Your task to perform on an android device: Go to notification settings Image 0: 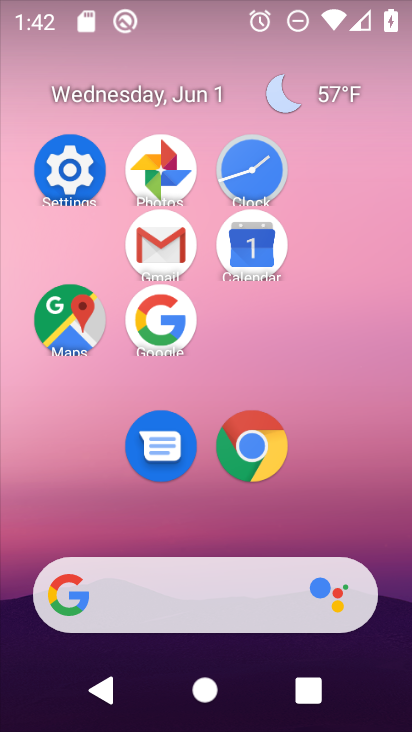
Step 0: click (74, 174)
Your task to perform on an android device: Go to notification settings Image 1: 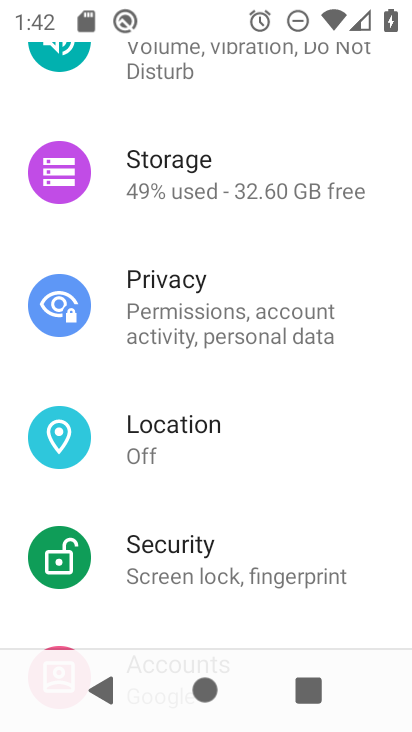
Step 1: drag from (244, 139) to (204, 548)
Your task to perform on an android device: Go to notification settings Image 2: 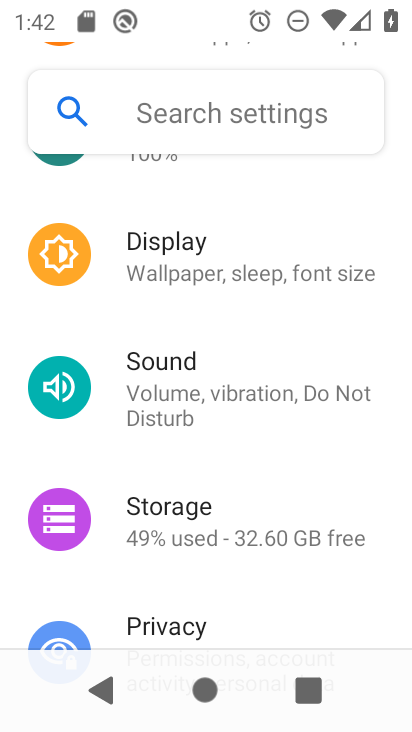
Step 2: drag from (313, 261) to (294, 673)
Your task to perform on an android device: Go to notification settings Image 3: 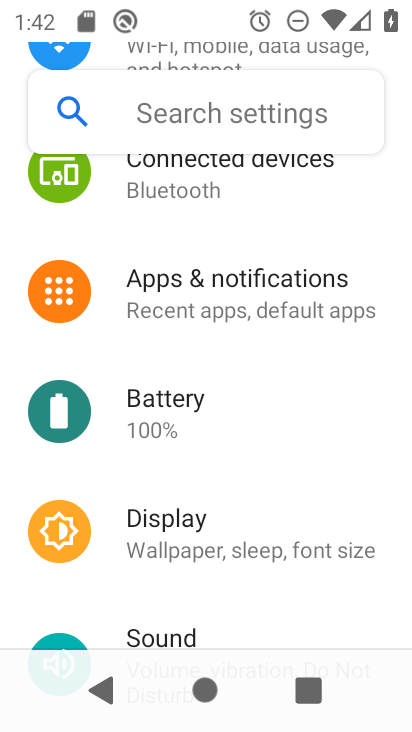
Step 3: drag from (269, 213) to (239, 623)
Your task to perform on an android device: Go to notification settings Image 4: 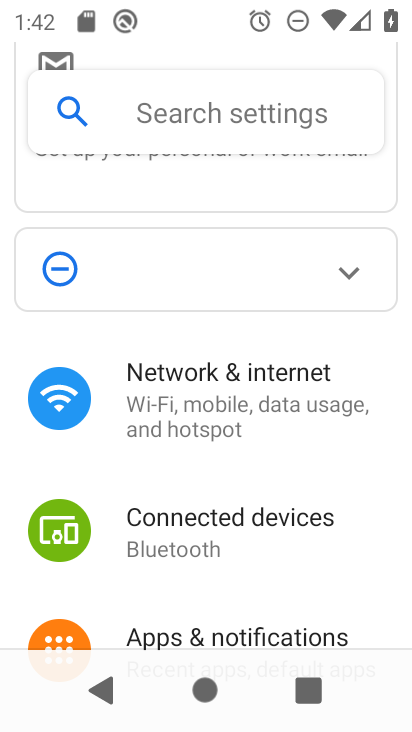
Step 4: click (257, 630)
Your task to perform on an android device: Go to notification settings Image 5: 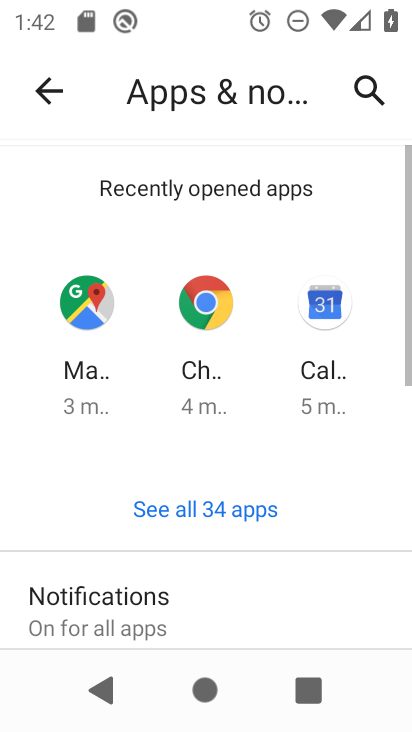
Step 5: task complete